Your task to perform on an android device: Open notification settings Image 0: 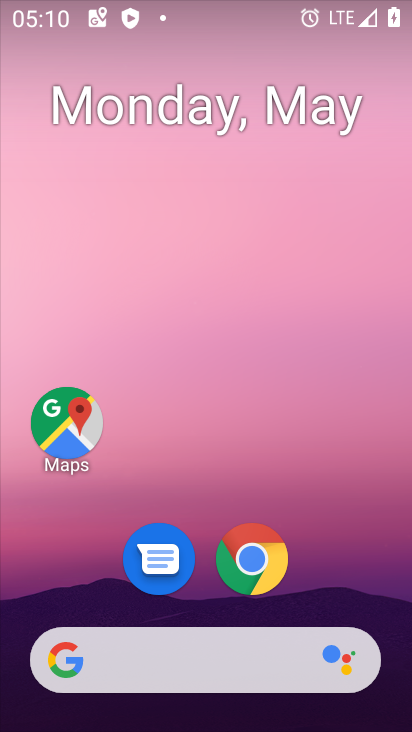
Step 0: drag from (240, 651) to (307, 22)
Your task to perform on an android device: Open notification settings Image 1: 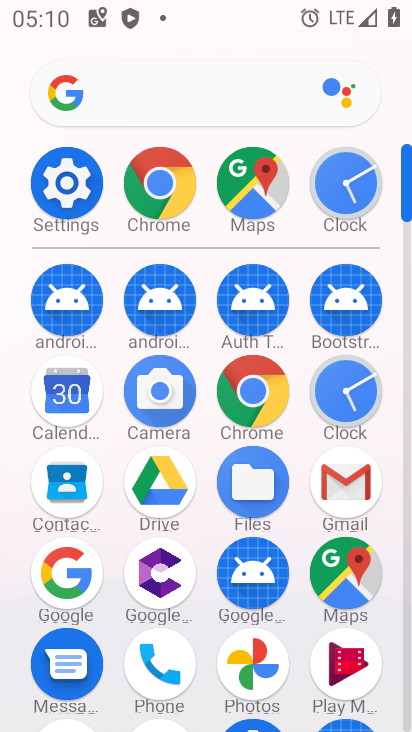
Step 1: click (64, 186)
Your task to perform on an android device: Open notification settings Image 2: 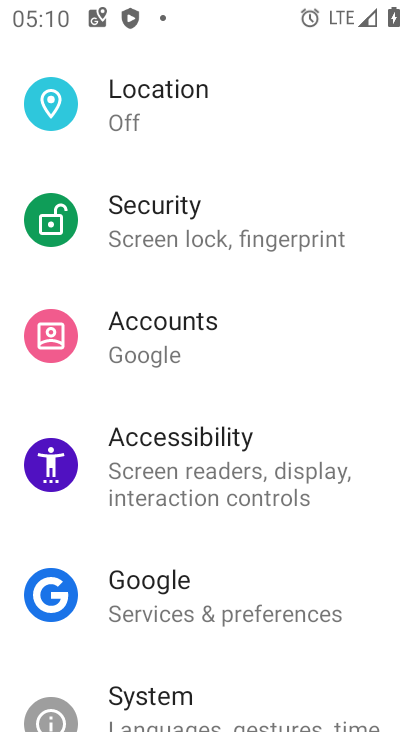
Step 2: drag from (246, 192) to (222, 725)
Your task to perform on an android device: Open notification settings Image 3: 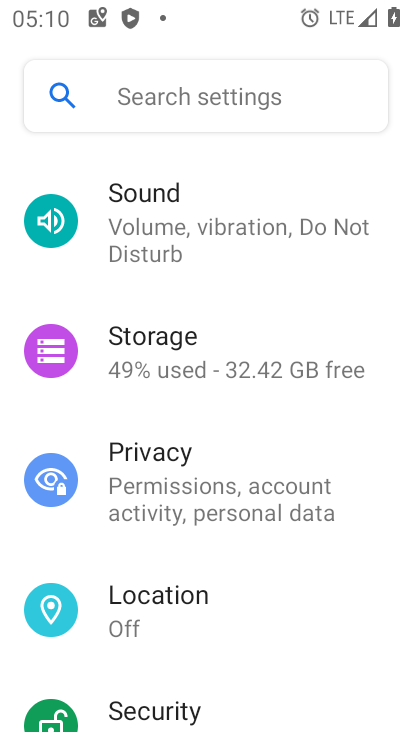
Step 3: drag from (268, 309) to (280, 726)
Your task to perform on an android device: Open notification settings Image 4: 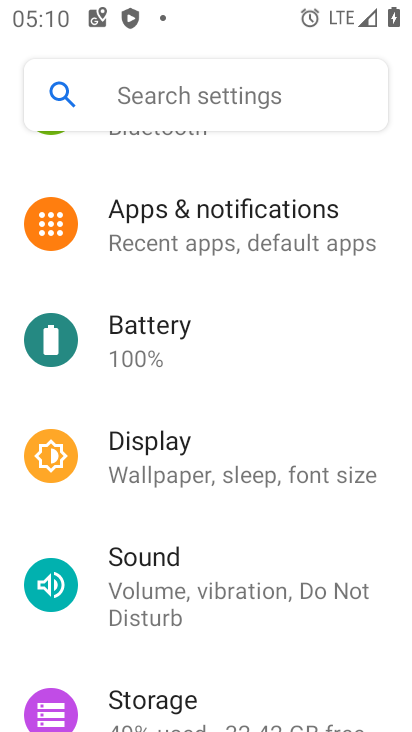
Step 4: click (236, 237)
Your task to perform on an android device: Open notification settings Image 5: 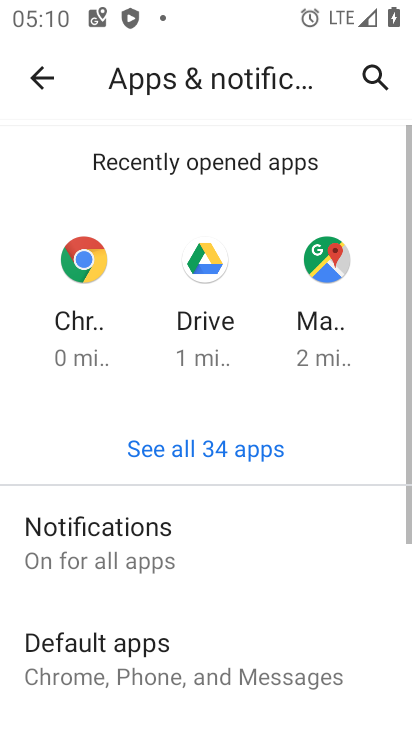
Step 5: click (264, 238)
Your task to perform on an android device: Open notification settings Image 6: 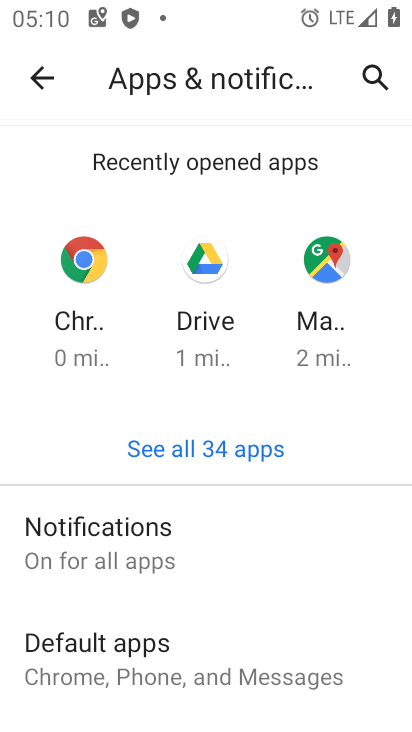
Step 6: task complete